Your task to perform on an android device: Go to Yahoo.com Image 0: 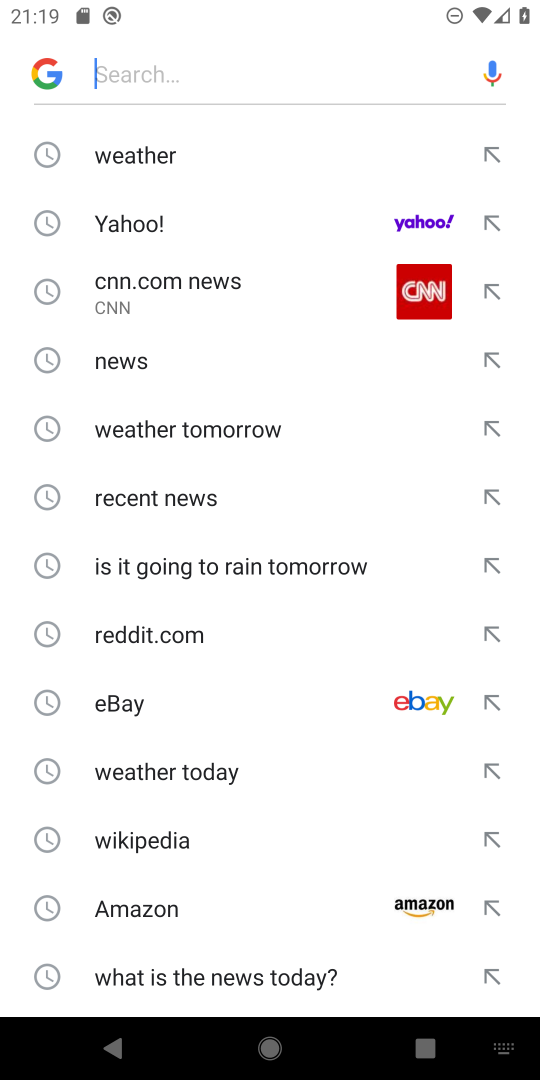
Step 0: click (162, 217)
Your task to perform on an android device: Go to Yahoo.com Image 1: 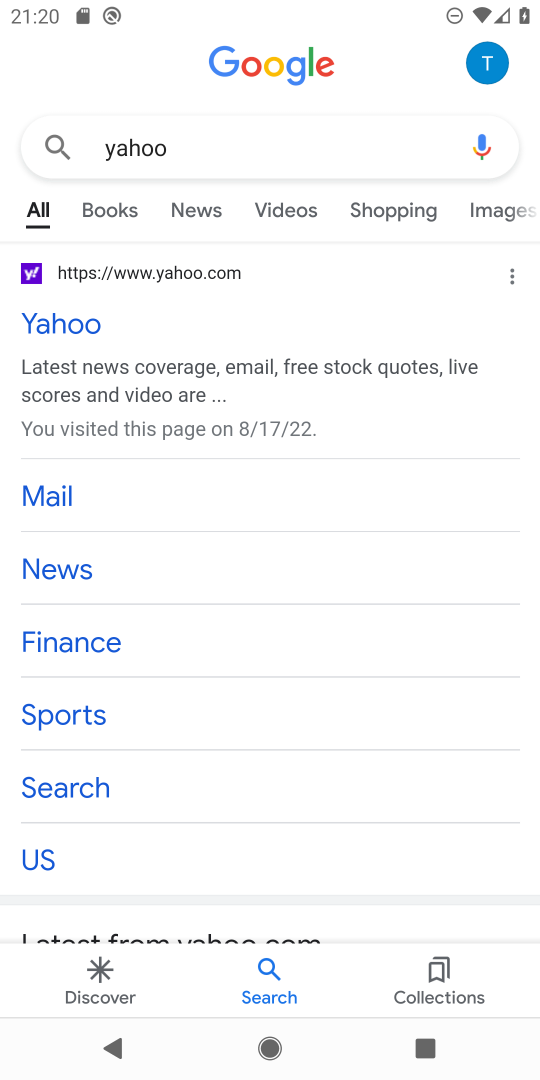
Step 1: click (66, 315)
Your task to perform on an android device: Go to Yahoo.com Image 2: 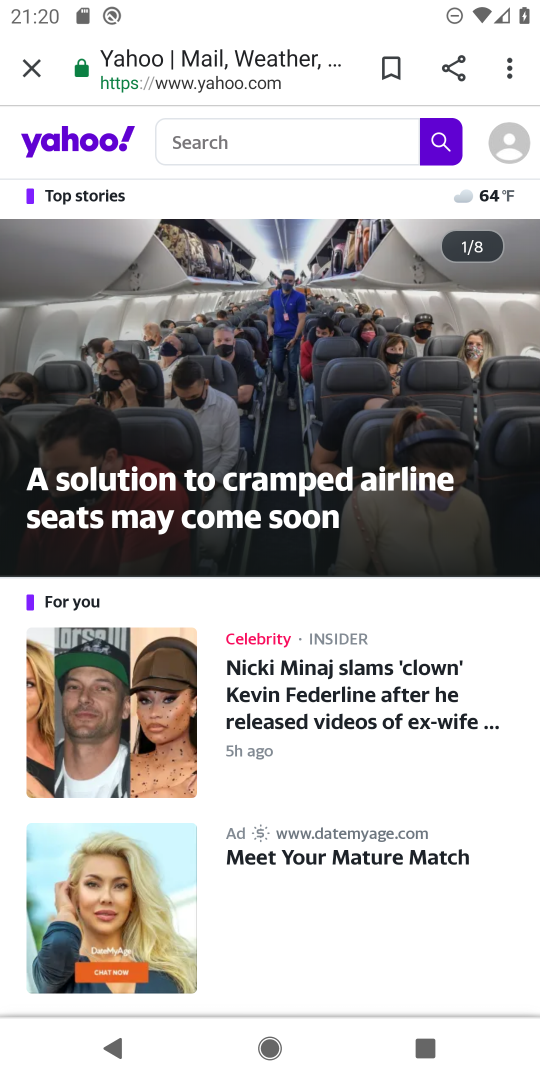
Step 2: task complete